Your task to perform on an android device: change notification settings in the gmail app Image 0: 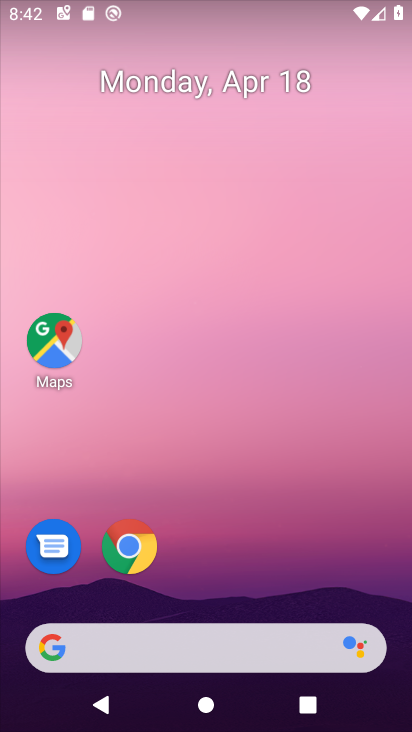
Step 0: drag from (277, 381) to (259, 201)
Your task to perform on an android device: change notification settings in the gmail app Image 1: 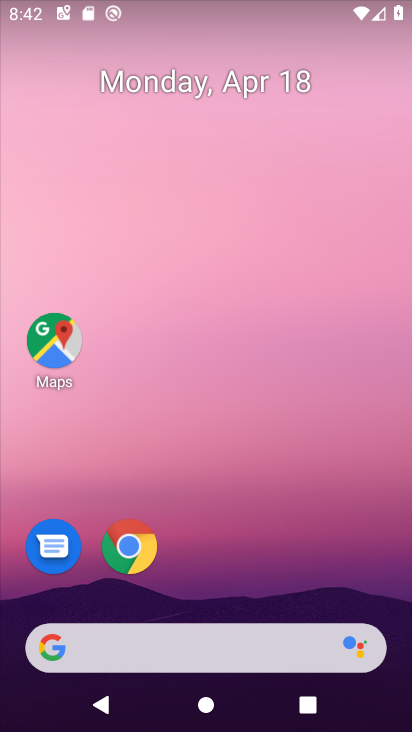
Step 1: drag from (334, 584) to (160, 152)
Your task to perform on an android device: change notification settings in the gmail app Image 2: 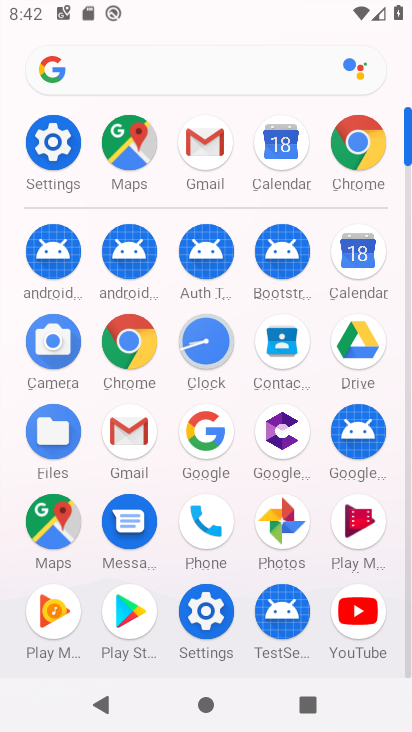
Step 2: click (196, 168)
Your task to perform on an android device: change notification settings in the gmail app Image 3: 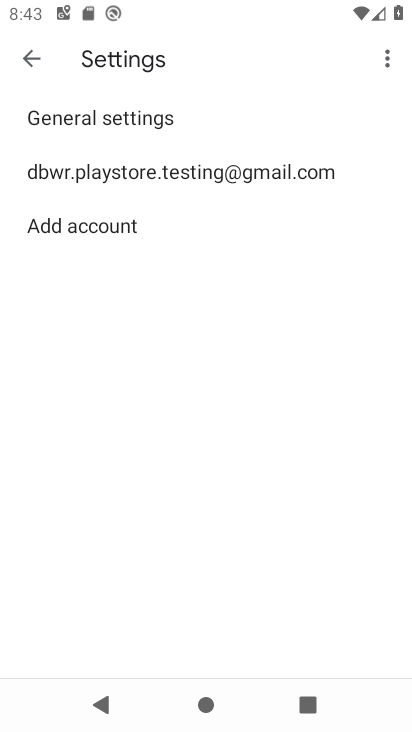
Step 3: click (199, 168)
Your task to perform on an android device: change notification settings in the gmail app Image 4: 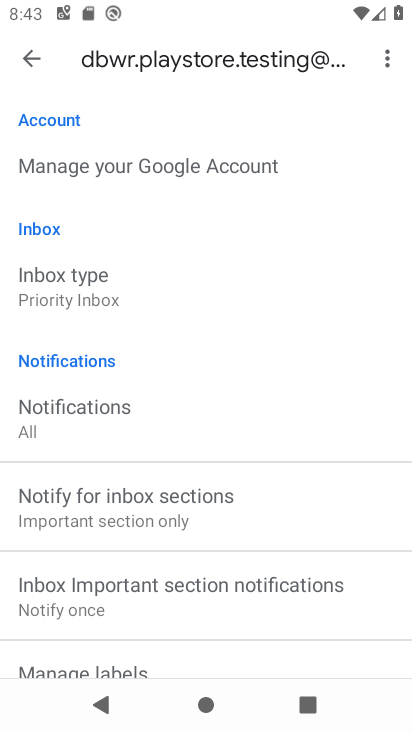
Step 4: drag from (223, 582) to (230, 80)
Your task to perform on an android device: change notification settings in the gmail app Image 5: 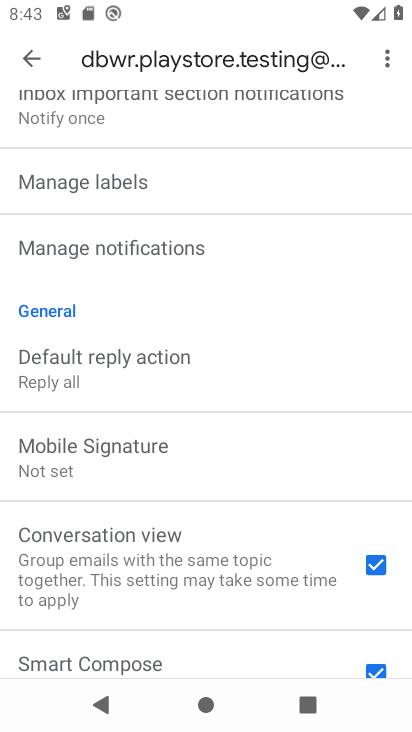
Step 5: click (211, 281)
Your task to perform on an android device: change notification settings in the gmail app Image 6: 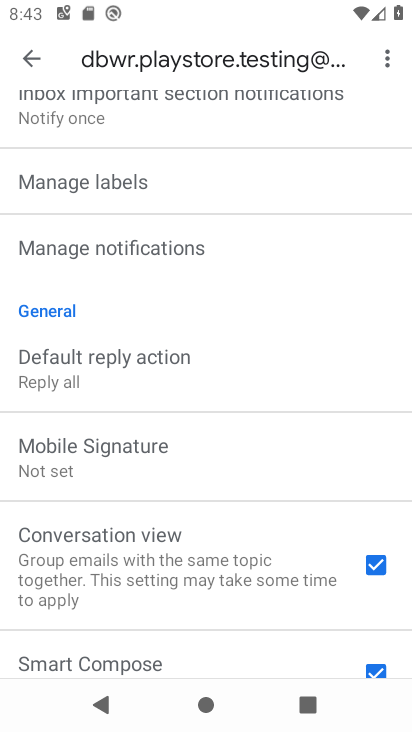
Step 6: click (207, 249)
Your task to perform on an android device: change notification settings in the gmail app Image 7: 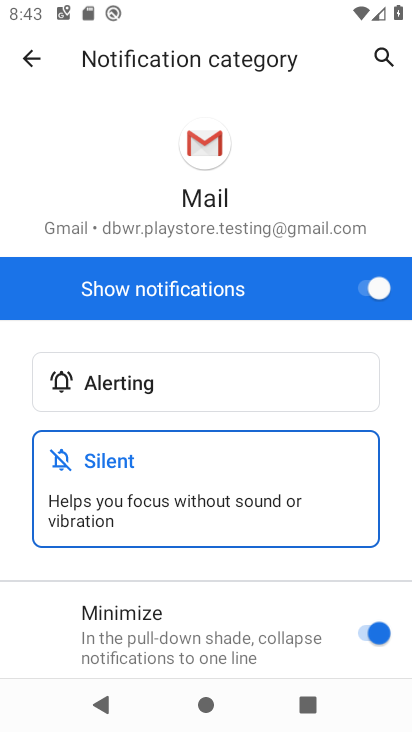
Step 7: drag from (396, 533) to (339, 53)
Your task to perform on an android device: change notification settings in the gmail app Image 8: 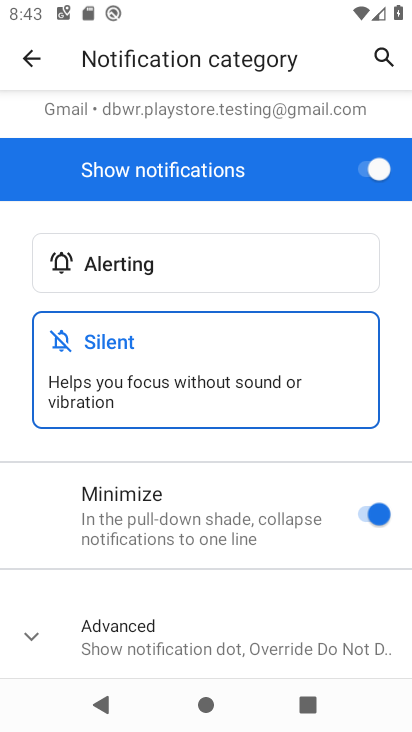
Step 8: click (305, 260)
Your task to perform on an android device: change notification settings in the gmail app Image 9: 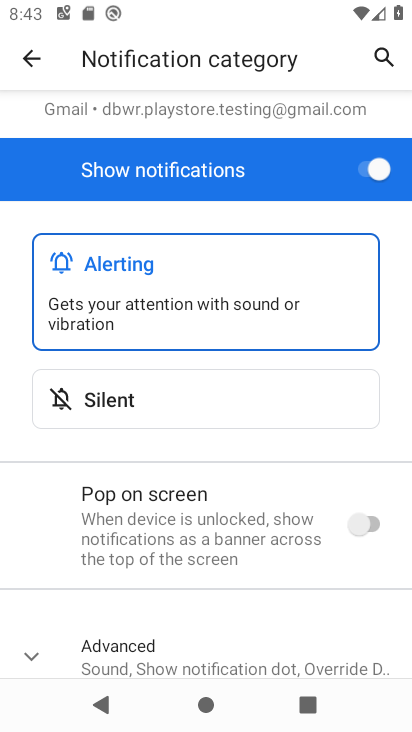
Step 9: click (374, 511)
Your task to perform on an android device: change notification settings in the gmail app Image 10: 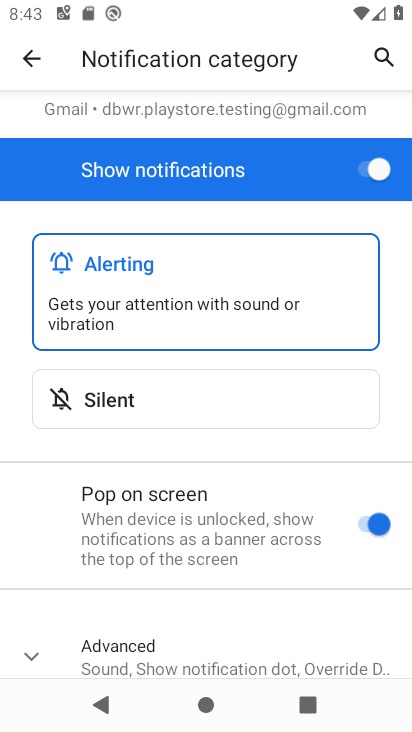
Step 10: task complete